Your task to perform on an android device: Open CNN.com Image 0: 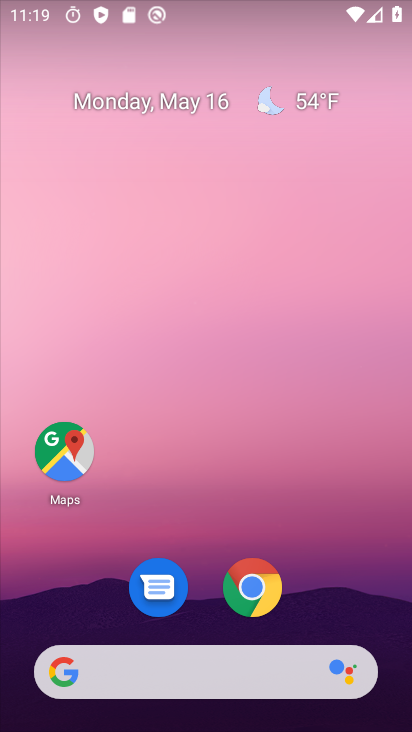
Step 0: drag from (200, 620) to (239, 460)
Your task to perform on an android device: Open CNN.com Image 1: 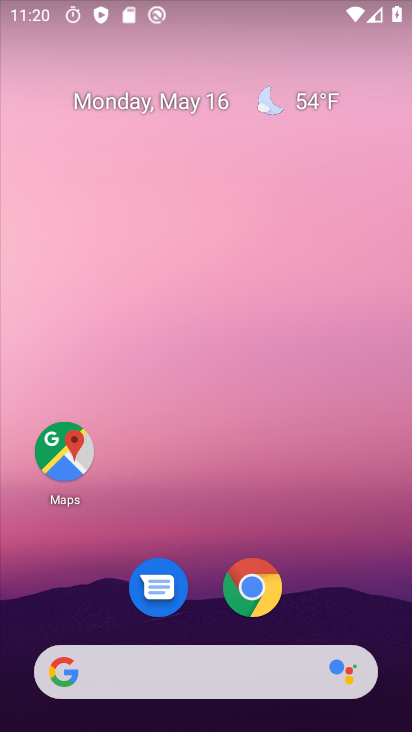
Step 1: drag from (209, 595) to (226, 110)
Your task to perform on an android device: Open CNN.com Image 2: 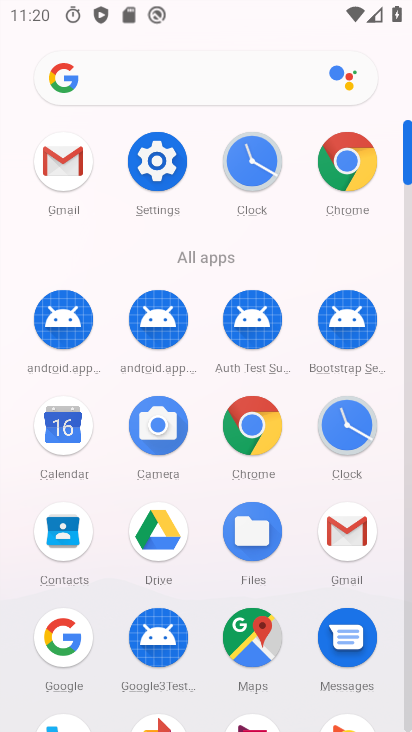
Step 2: click (208, 81)
Your task to perform on an android device: Open CNN.com Image 3: 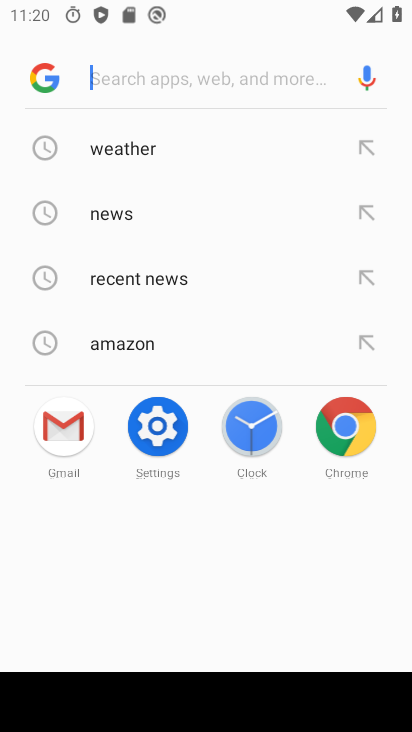
Step 3: type "cnn.com"
Your task to perform on an android device: Open CNN.com Image 4: 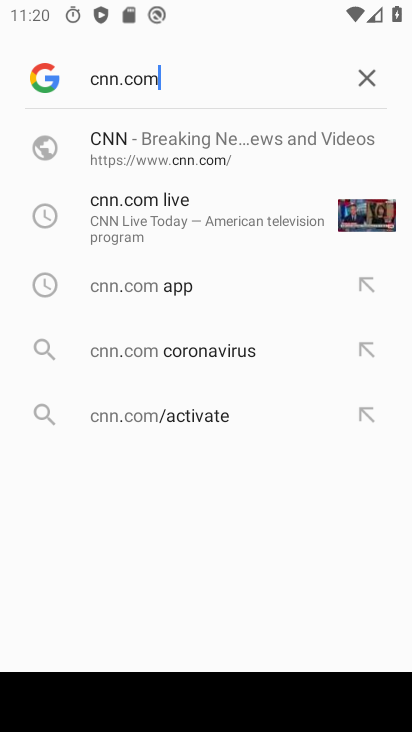
Step 4: click (155, 131)
Your task to perform on an android device: Open CNN.com Image 5: 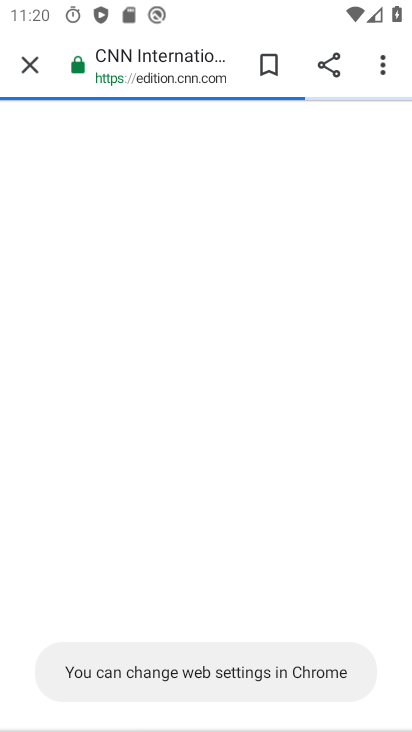
Step 5: task complete